Your task to perform on an android device: turn off translation in the chrome app Image 0: 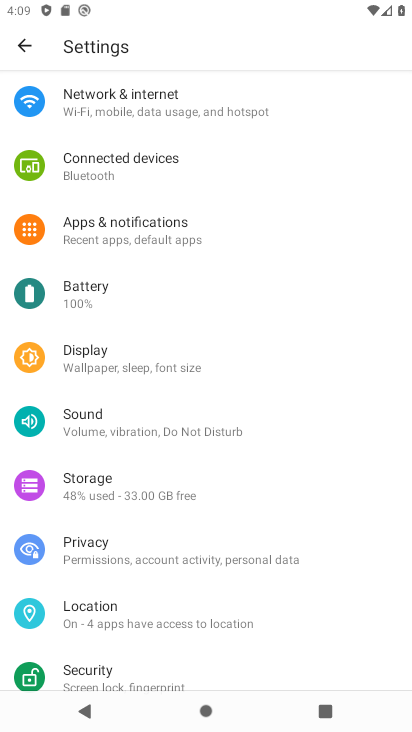
Step 0: press home button
Your task to perform on an android device: turn off translation in the chrome app Image 1: 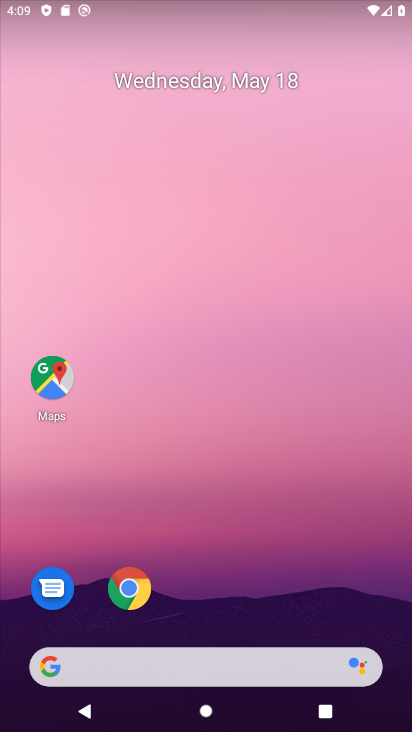
Step 1: click (121, 580)
Your task to perform on an android device: turn off translation in the chrome app Image 2: 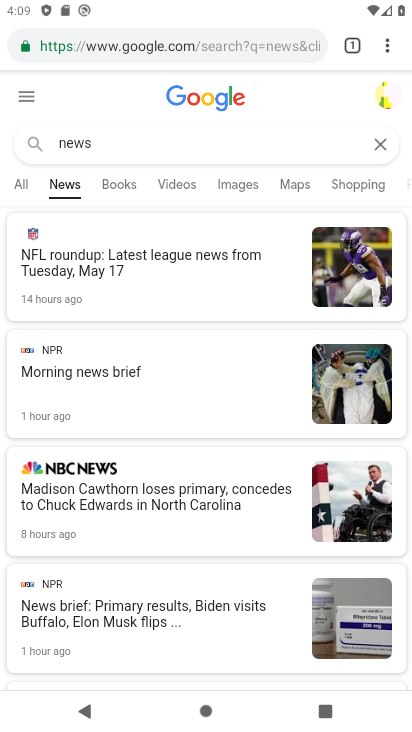
Step 2: drag from (387, 34) to (227, 510)
Your task to perform on an android device: turn off translation in the chrome app Image 3: 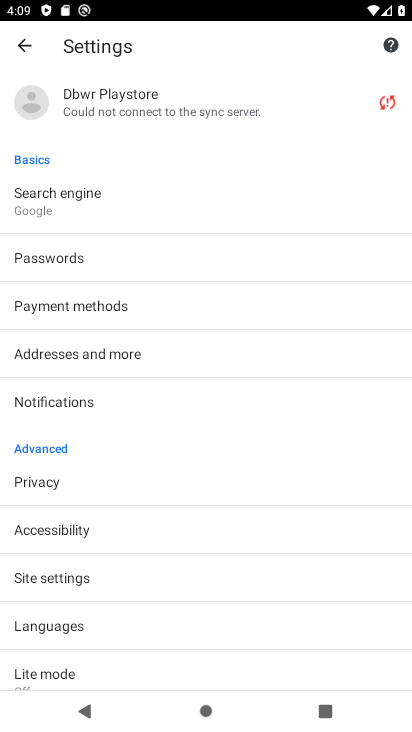
Step 3: drag from (139, 570) to (256, 241)
Your task to perform on an android device: turn off translation in the chrome app Image 4: 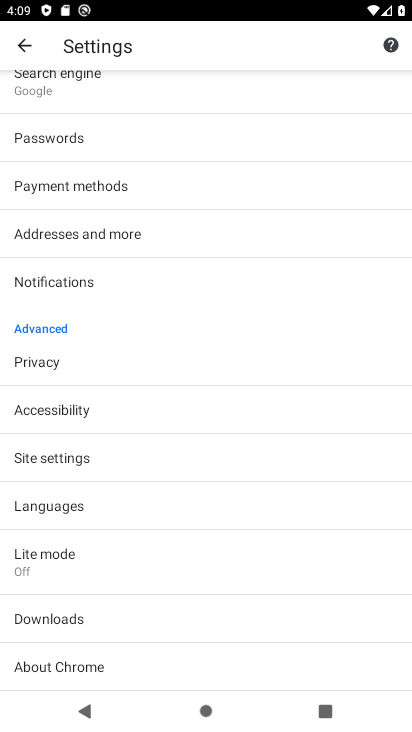
Step 4: click (77, 510)
Your task to perform on an android device: turn off translation in the chrome app Image 5: 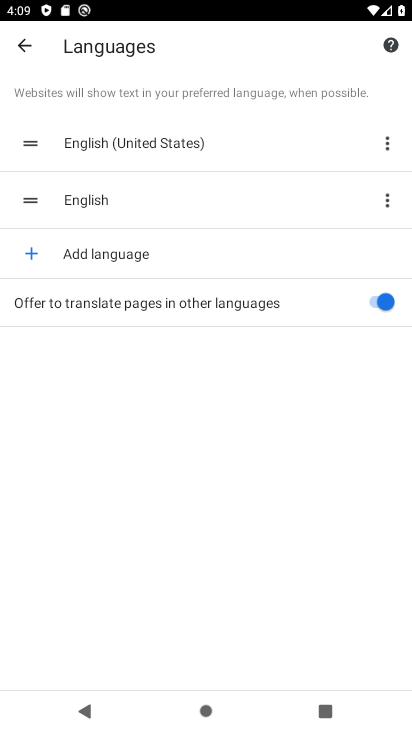
Step 5: click (372, 292)
Your task to perform on an android device: turn off translation in the chrome app Image 6: 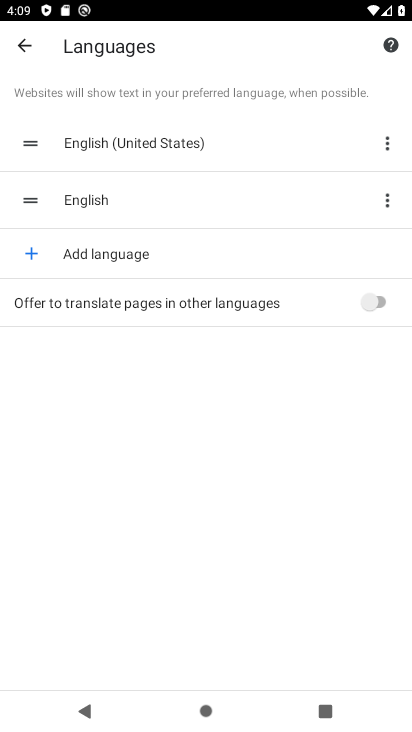
Step 6: task complete